Your task to perform on an android device: Go to ESPN.com Image 0: 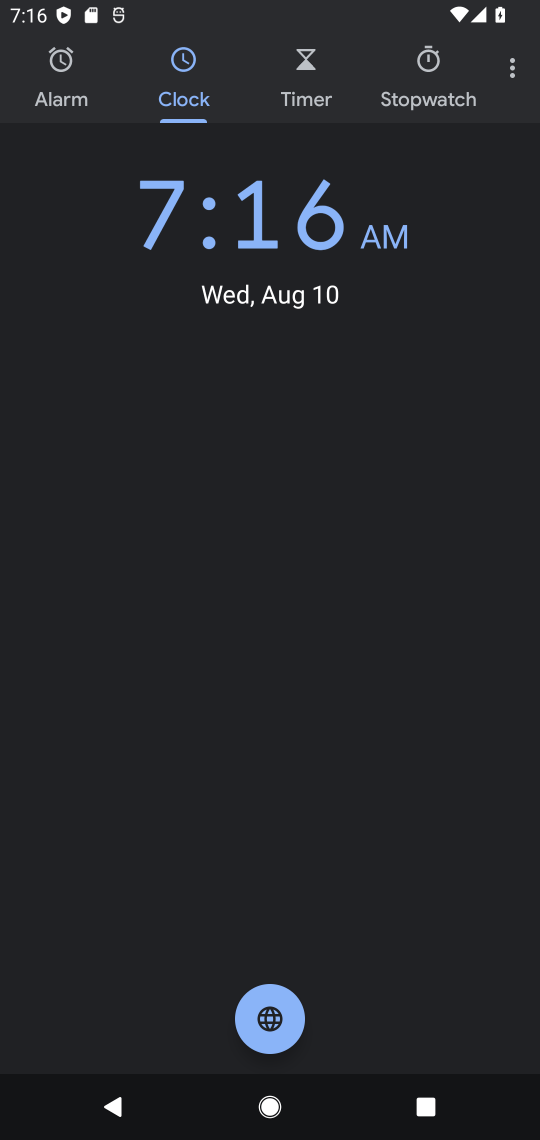
Step 0: press home button
Your task to perform on an android device: Go to ESPN.com Image 1: 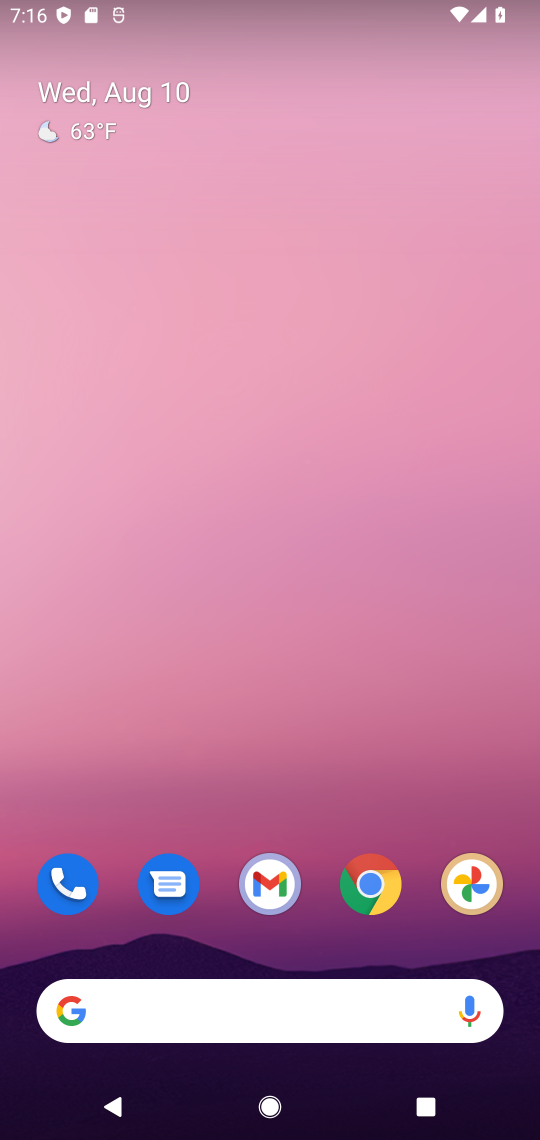
Step 1: click (378, 889)
Your task to perform on an android device: Go to ESPN.com Image 2: 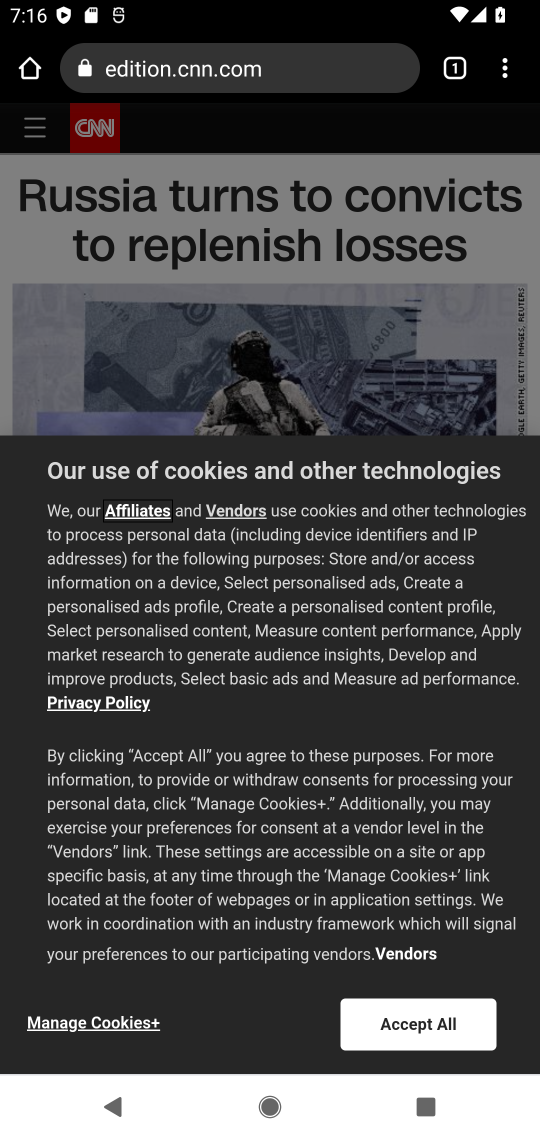
Step 2: click (425, 1032)
Your task to perform on an android device: Go to ESPN.com Image 3: 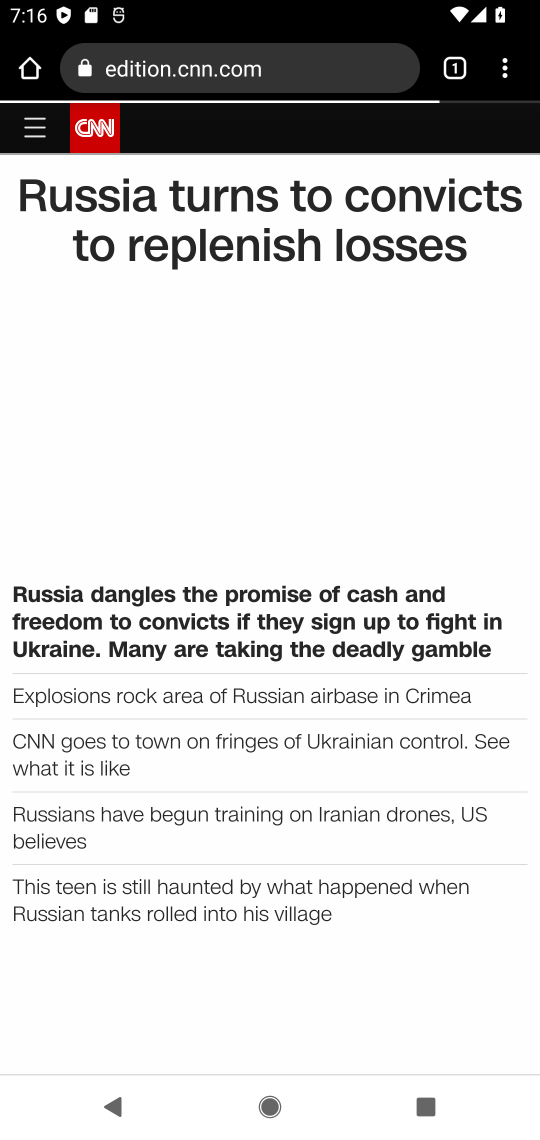
Step 3: click (499, 75)
Your task to perform on an android device: Go to ESPN.com Image 4: 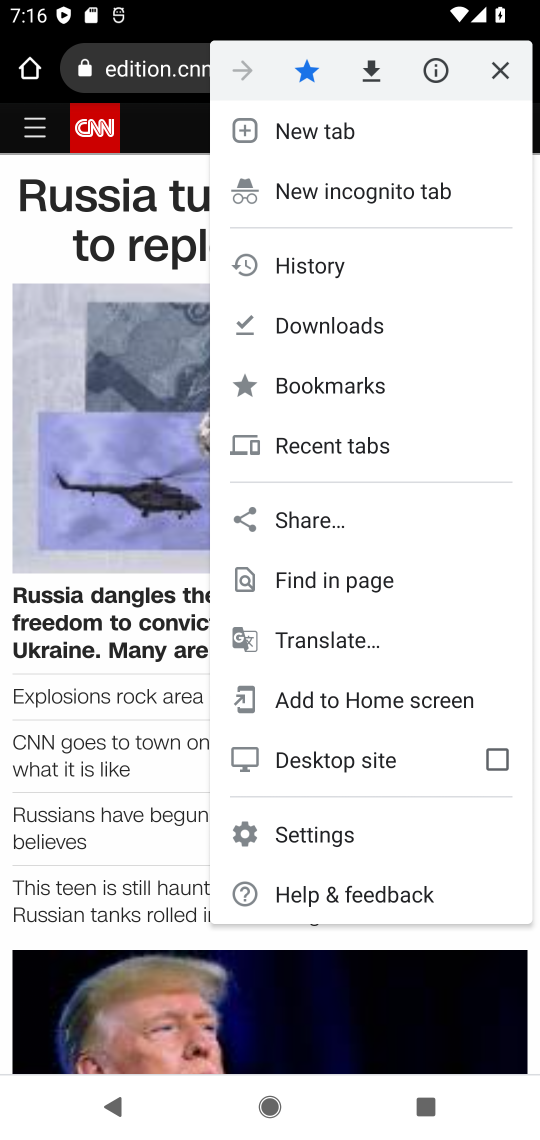
Step 4: click (327, 123)
Your task to perform on an android device: Go to ESPN.com Image 5: 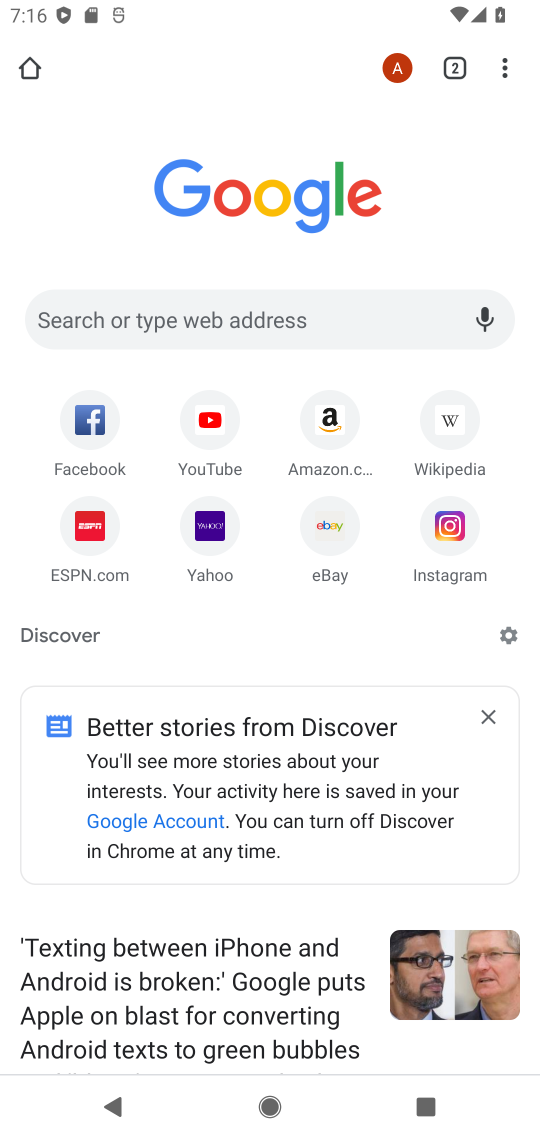
Step 5: click (75, 529)
Your task to perform on an android device: Go to ESPN.com Image 6: 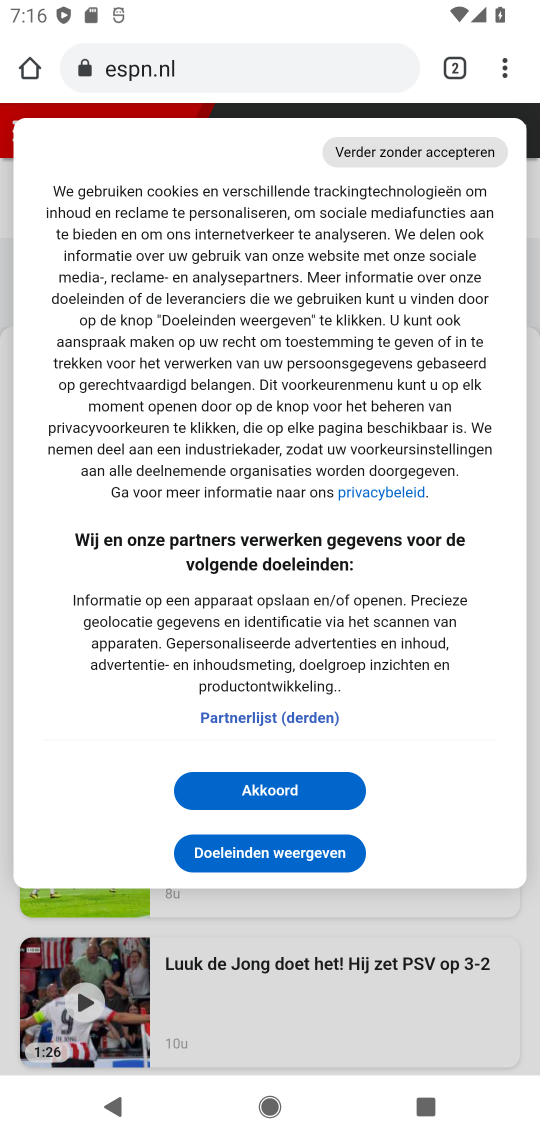
Step 6: task complete